Your task to perform on an android device: open app "PUBG MOBILE" Image 0: 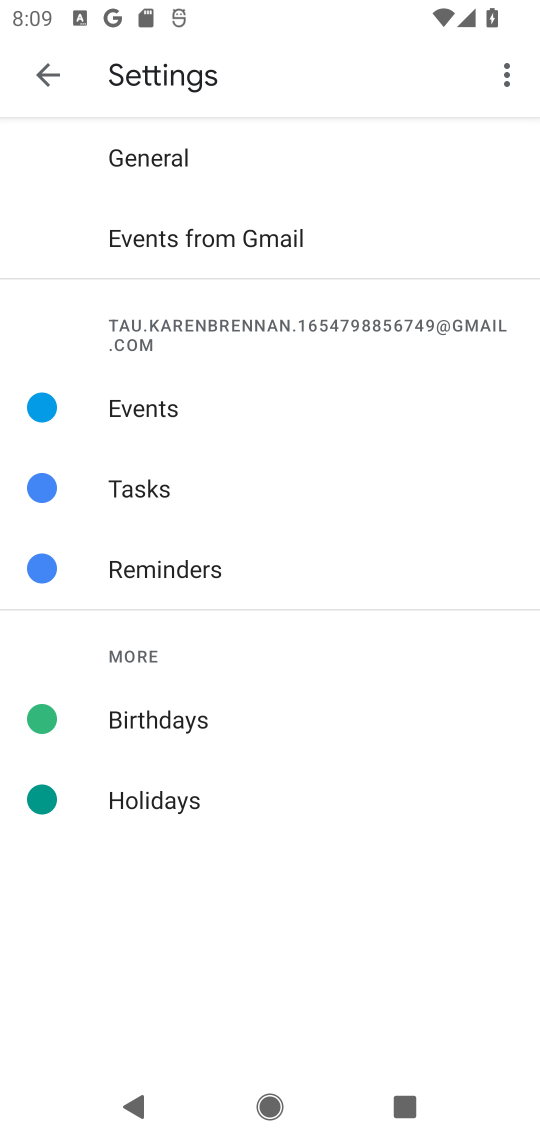
Step 0: press home button
Your task to perform on an android device: open app "PUBG MOBILE" Image 1: 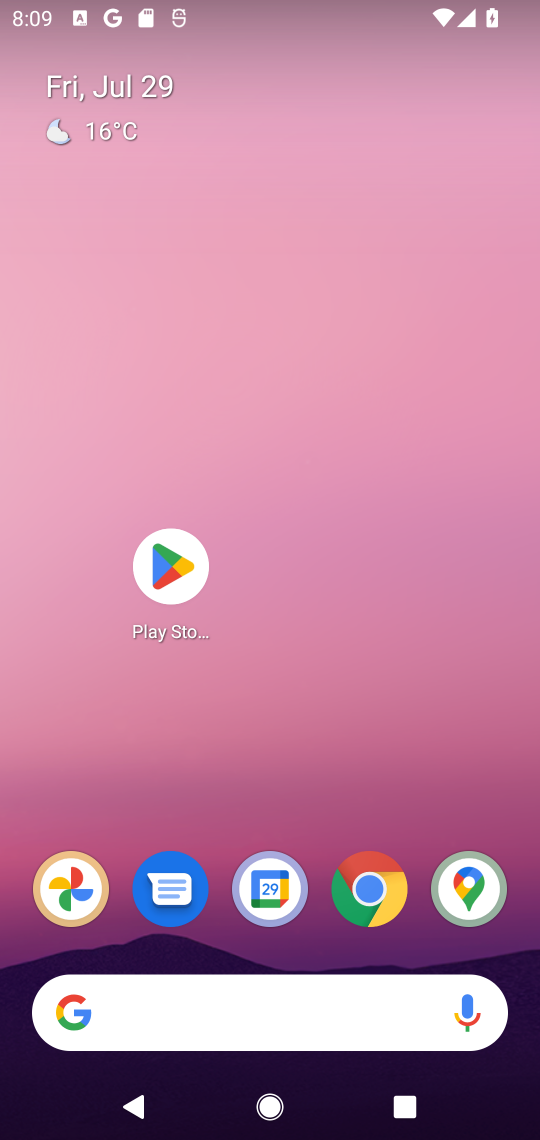
Step 1: click (171, 563)
Your task to perform on an android device: open app "PUBG MOBILE" Image 2: 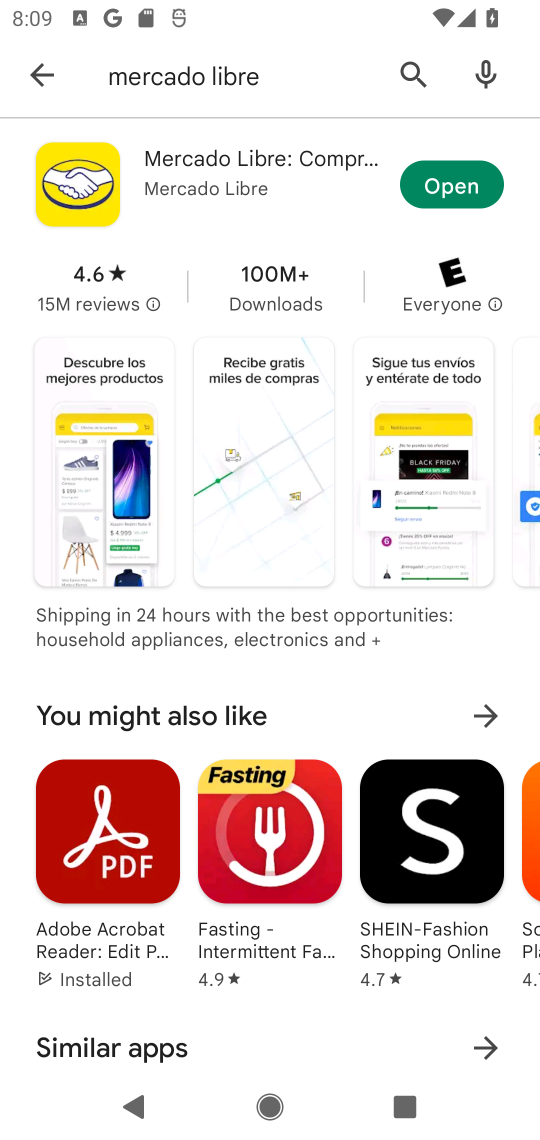
Step 2: click (412, 71)
Your task to perform on an android device: open app "PUBG MOBILE" Image 3: 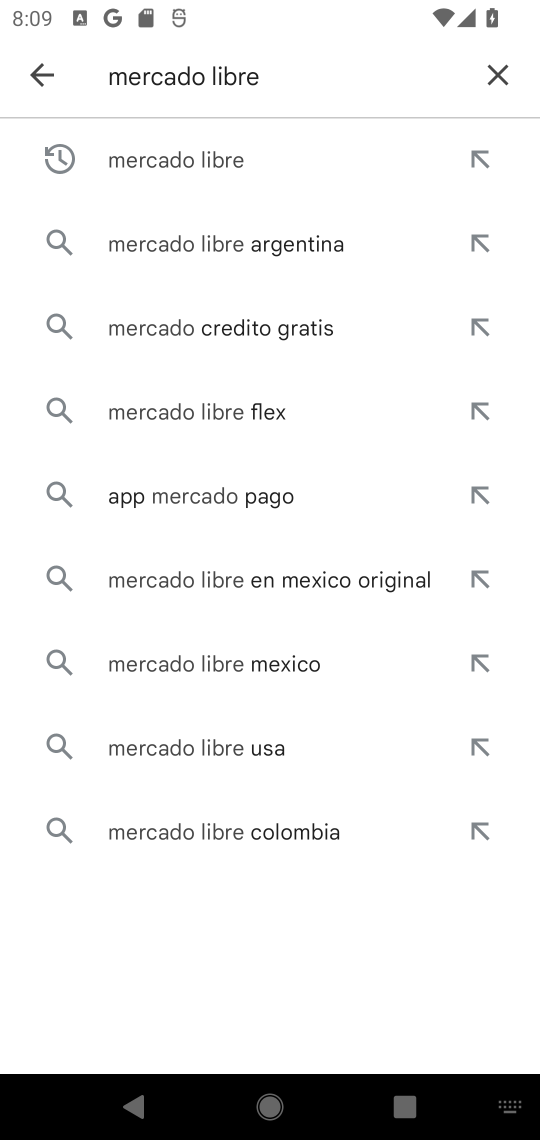
Step 3: click (494, 69)
Your task to perform on an android device: open app "PUBG MOBILE" Image 4: 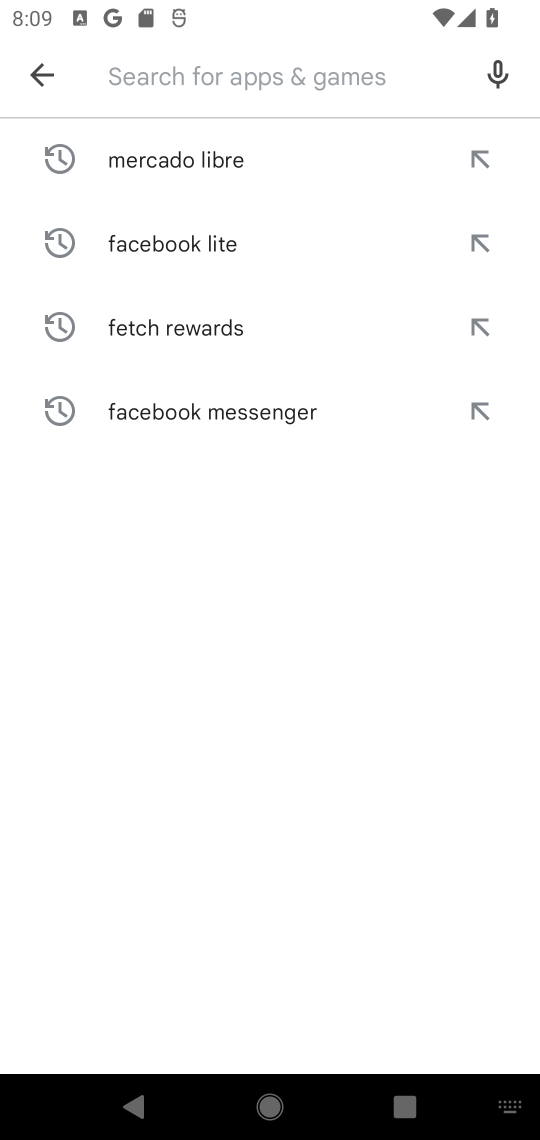
Step 4: type "PUBG MOBILE"
Your task to perform on an android device: open app "PUBG MOBILE" Image 5: 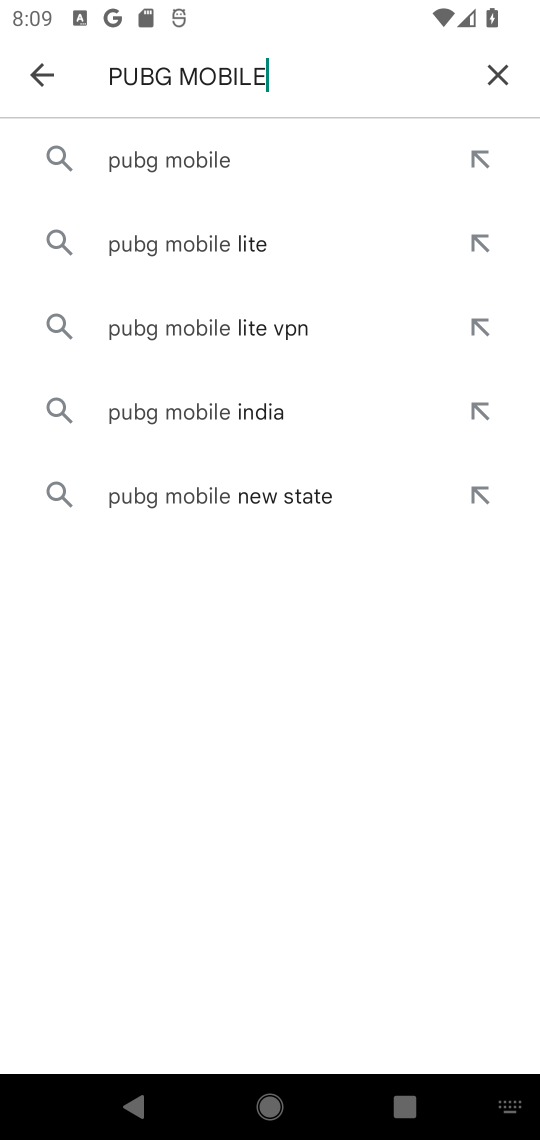
Step 5: click (207, 151)
Your task to perform on an android device: open app "PUBG MOBILE" Image 6: 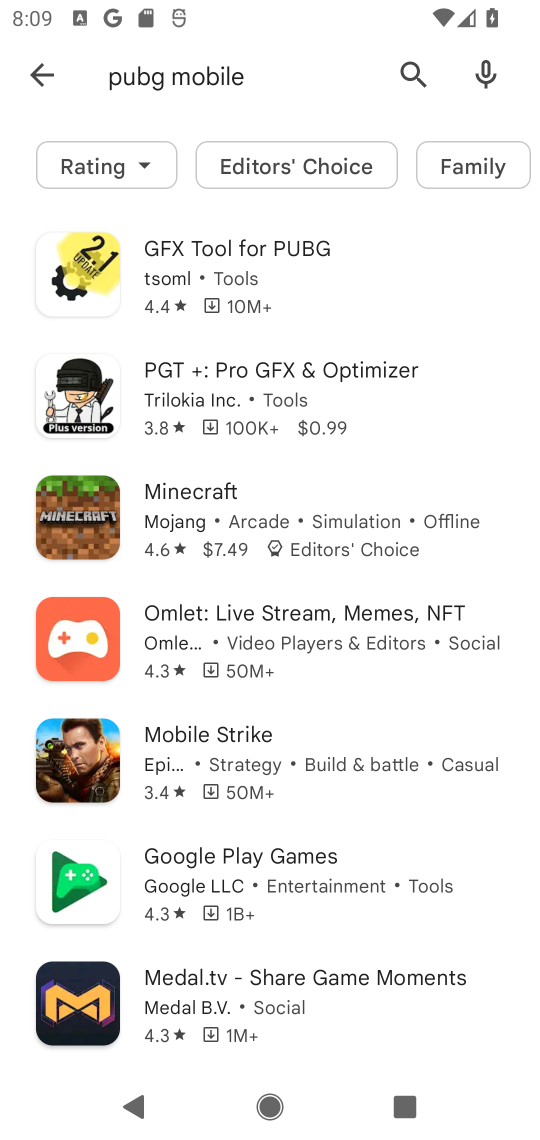
Step 6: task complete